Your task to perform on an android device: visit the assistant section in the google photos Image 0: 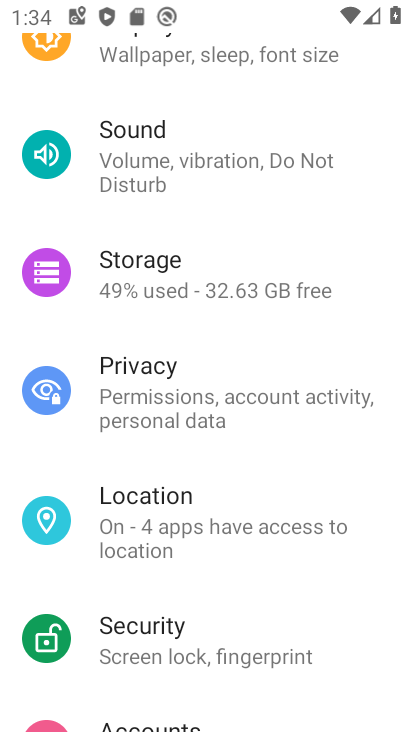
Step 0: press home button
Your task to perform on an android device: visit the assistant section in the google photos Image 1: 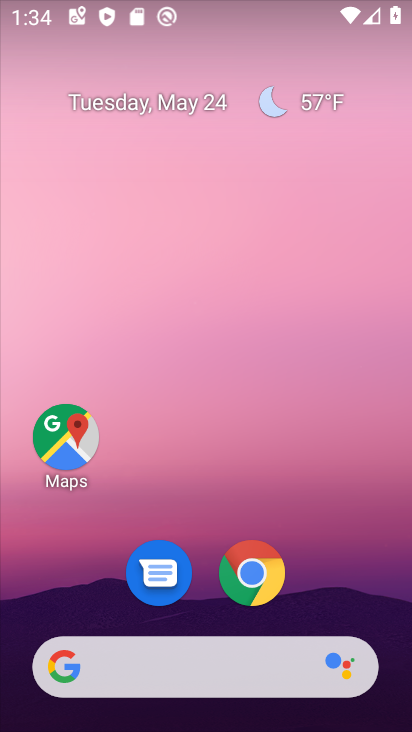
Step 1: drag from (332, 564) to (334, 121)
Your task to perform on an android device: visit the assistant section in the google photos Image 2: 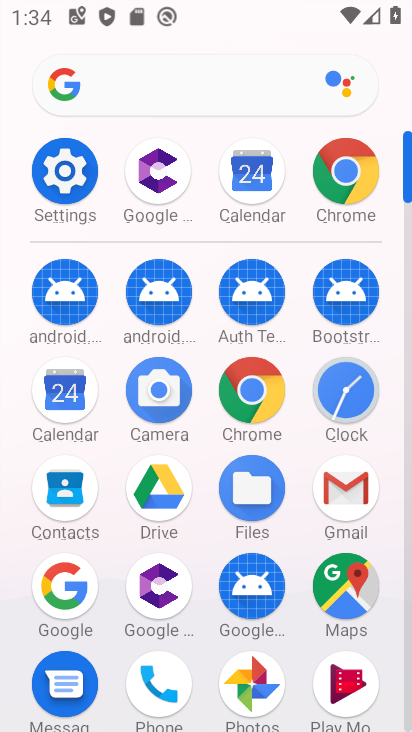
Step 2: click (256, 663)
Your task to perform on an android device: visit the assistant section in the google photos Image 3: 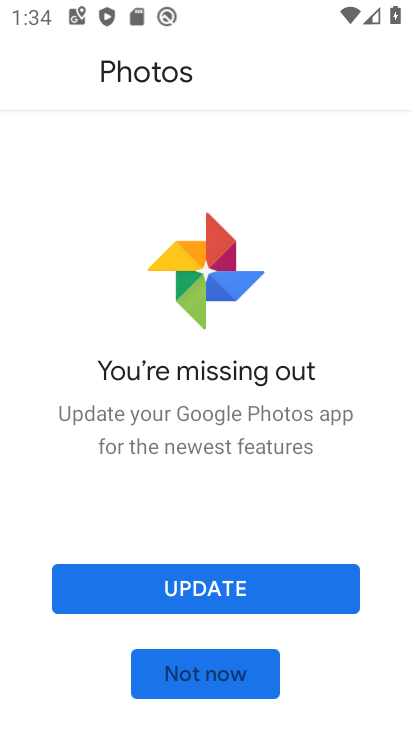
Step 3: click (240, 588)
Your task to perform on an android device: visit the assistant section in the google photos Image 4: 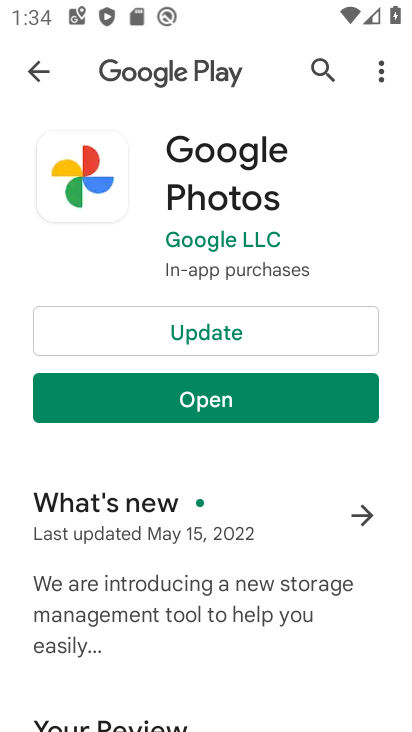
Step 4: click (207, 323)
Your task to perform on an android device: visit the assistant section in the google photos Image 5: 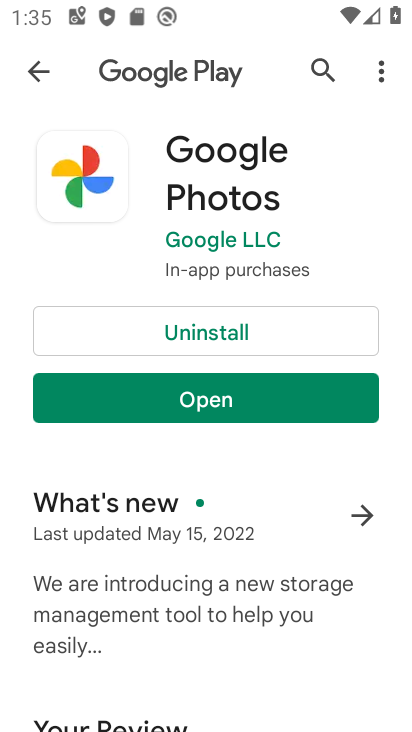
Step 5: click (243, 406)
Your task to perform on an android device: visit the assistant section in the google photos Image 6: 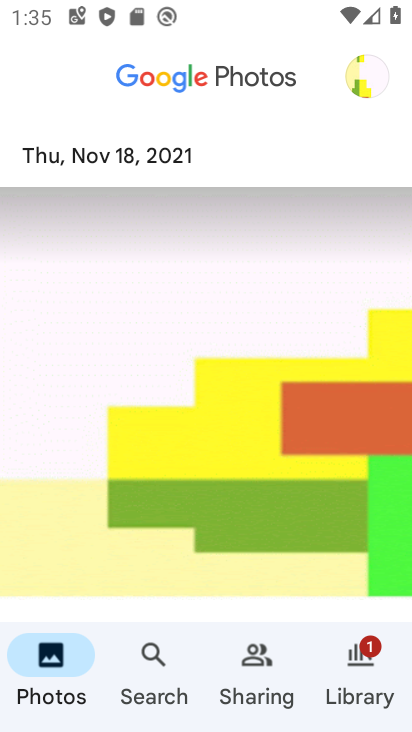
Step 6: click (357, 672)
Your task to perform on an android device: visit the assistant section in the google photos Image 7: 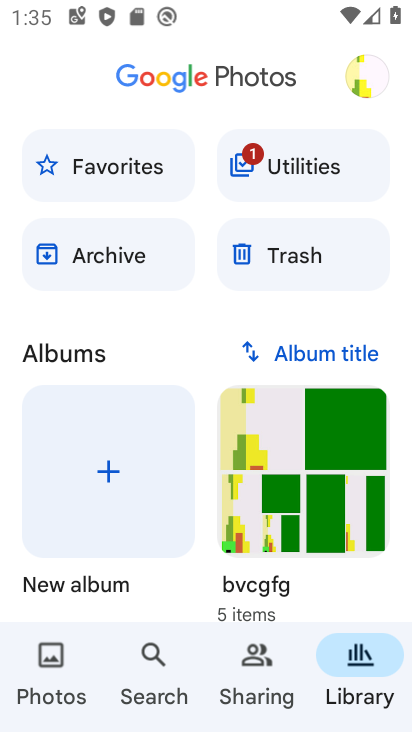
Step 7: task complete